Your task to perform on an android device: Open sound settings Image 0: 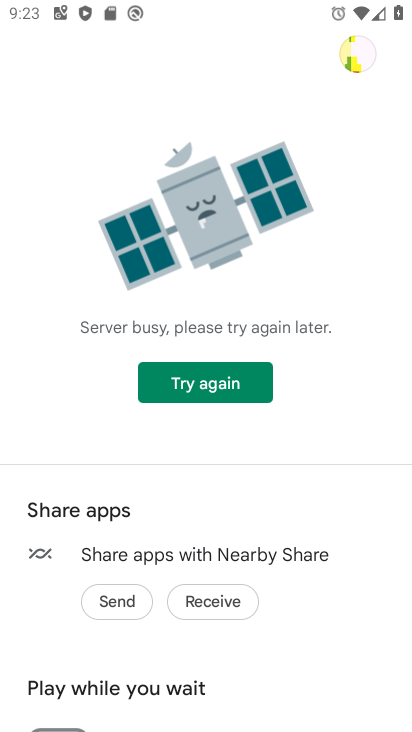
Step 0: press home button
Your task to perform on an android device: Open sound settings Image 1: 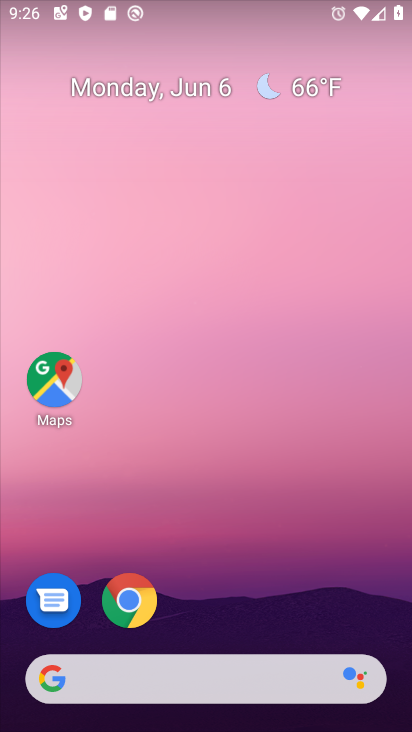
Step 1: drag from (11, 685) to (291, 189)
Your task to perform on an android device: Open sound settings Image 2: 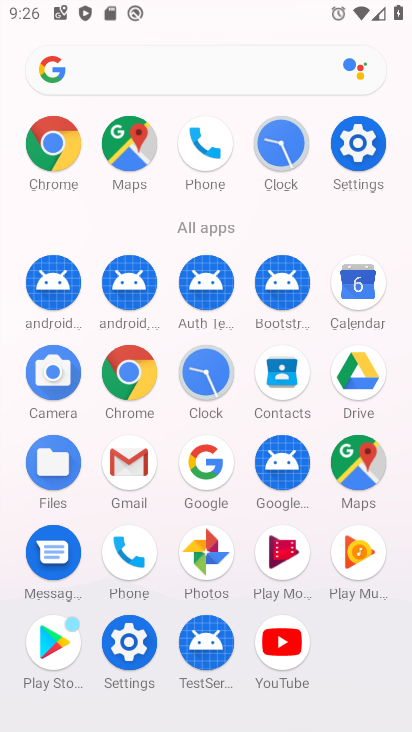
Step 2: click (358, 146)
Your task to perform on an android device: Open sound settings Image 3: 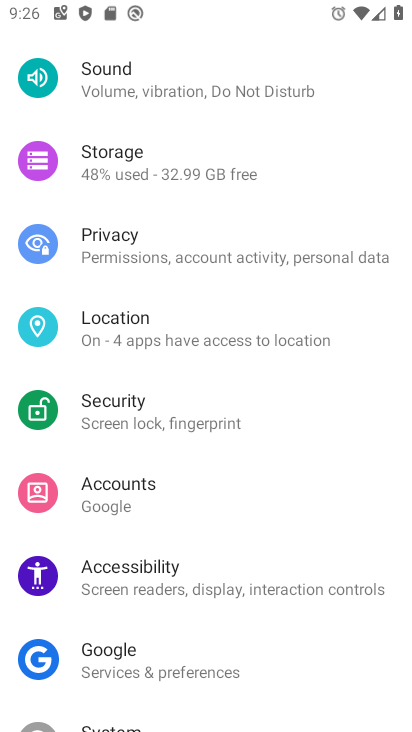
Step 3: click (75, 73)
Your task to perform on an android device: Open sound settings Image 4: 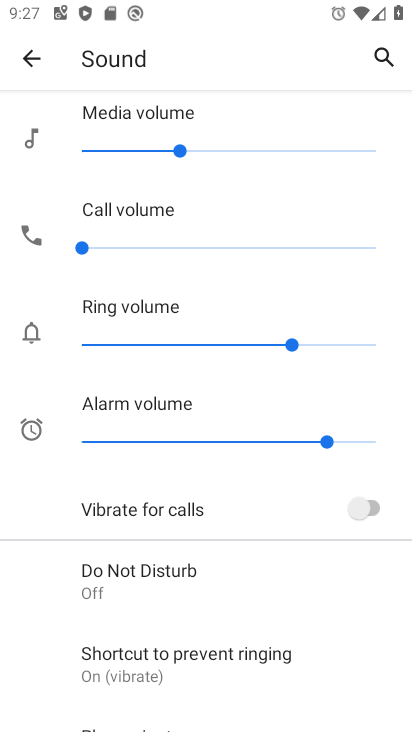
Step 4: task complete